Your task to perform on an android device: allow notifications from all sites in the chrome app Image 0: 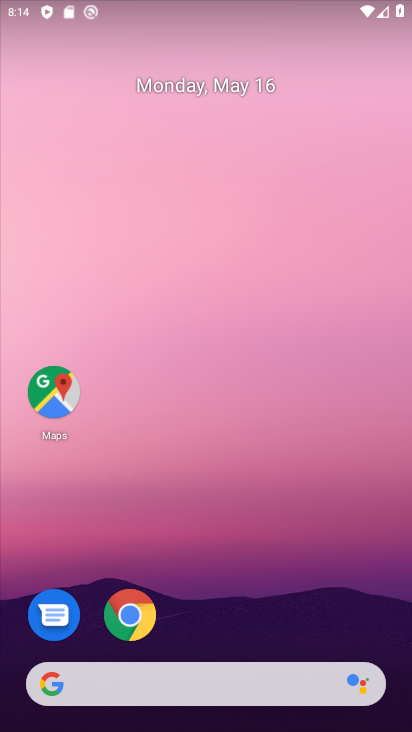
Step 0: drag from (241, 697) to (218, 114)
Your task to perform on an android device: allow notifications from all sites in the chrome app Image 1: 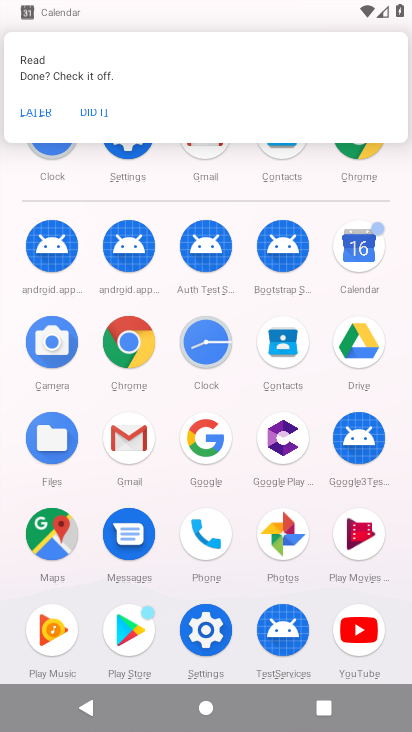
Step 1: click (144, 372)
Your task to perform on an android device: allow notifications from all sites in the chrome app Image 2: 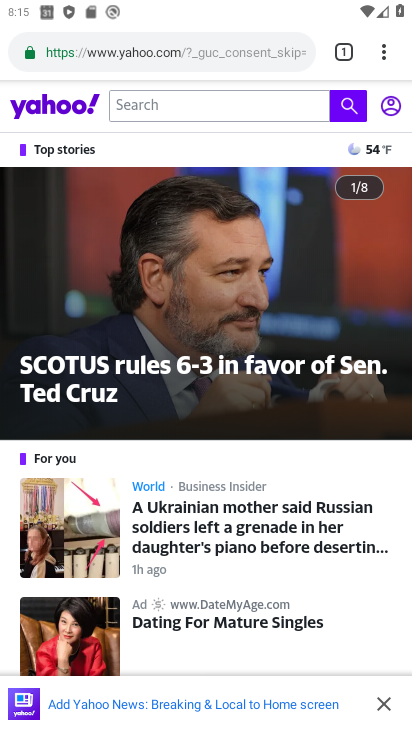
Step 2: click (386, 59)
Your task to perform on an android device: allow notifications from all sites in the chrome app Image 3: 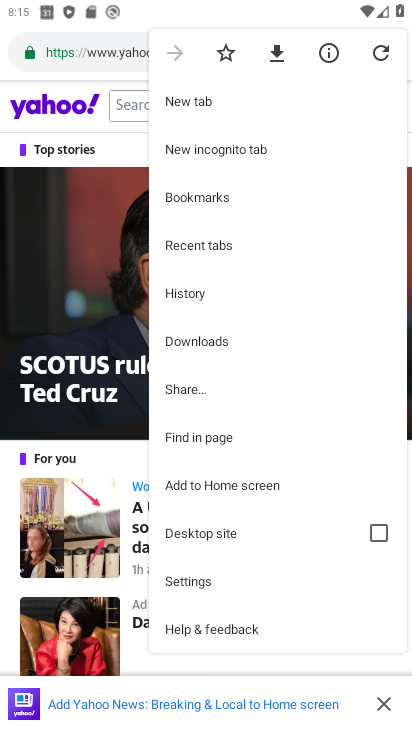
Step 3: click (188, 580)
Your task to perform on an android device: allow notifications from all sites in the chrome app Image 4: 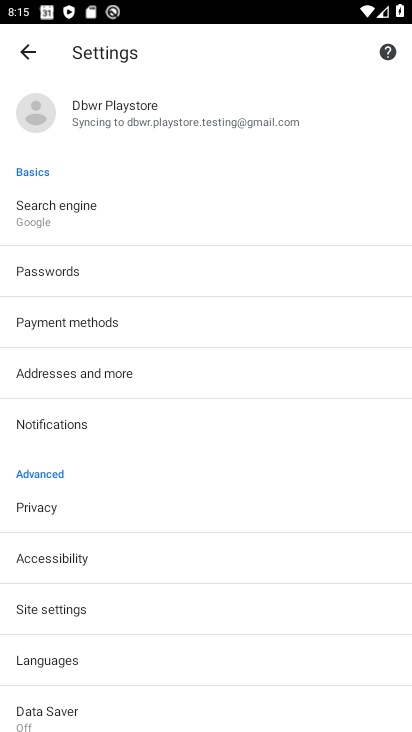
Step 4: click (73, 429)
Your task to perform on an android device: allow notifications from all sites in the chrome app Image 5: 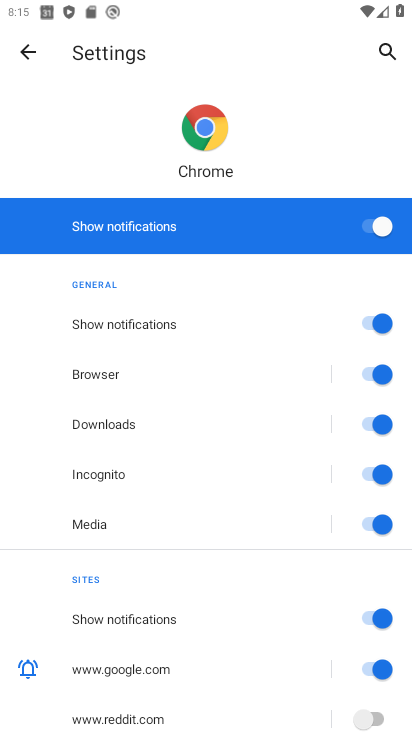
Step 5: task complete